Your task to perform on an android device: Show me recent news Image 0: 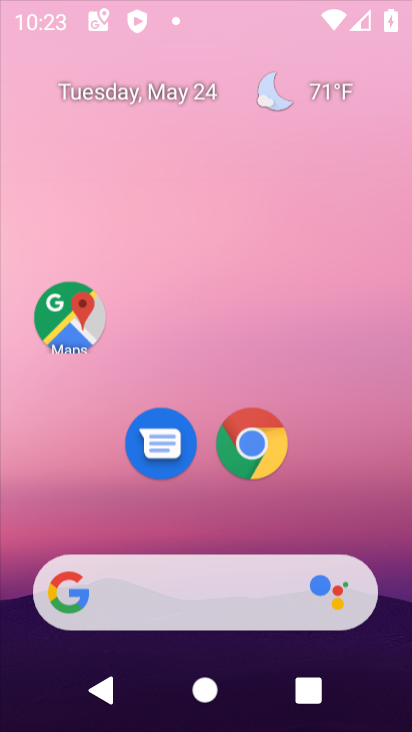
Step 0: drag from (318, 72) to (309, 26)
Your task to perform on an android device: Show me recent news Image 1: 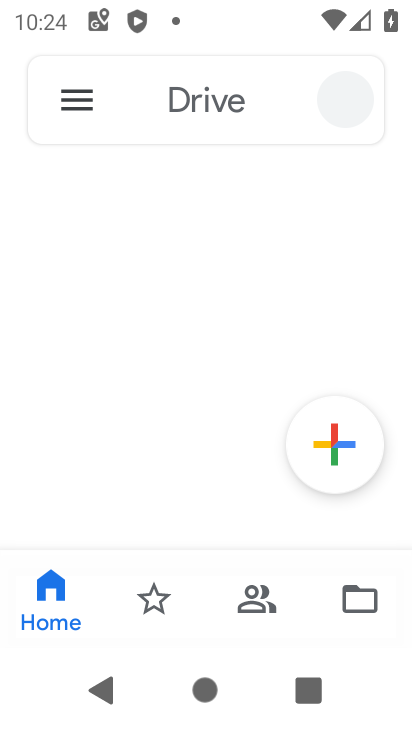
Step 1: press home button
Your task to perform on an android device: Show me recent news Image 2: 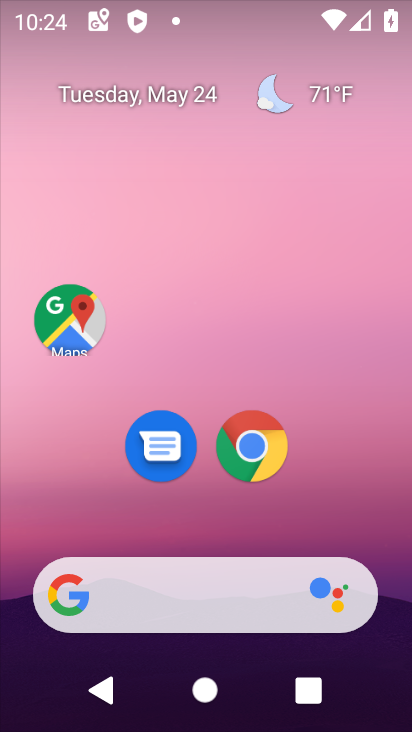
Step 2: drag from (334, 526) to (284, 191)
Your task to perform on an android device: Show me recent news Image 3: 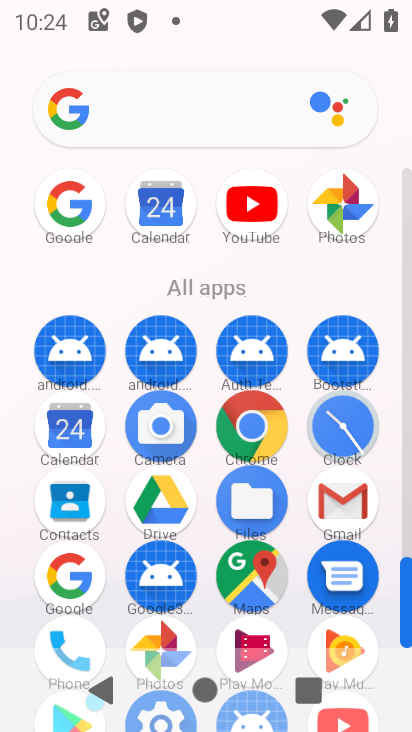
Step 3: click (65, 202)
Your task to perform on an android device: Show me recent news Image 4: 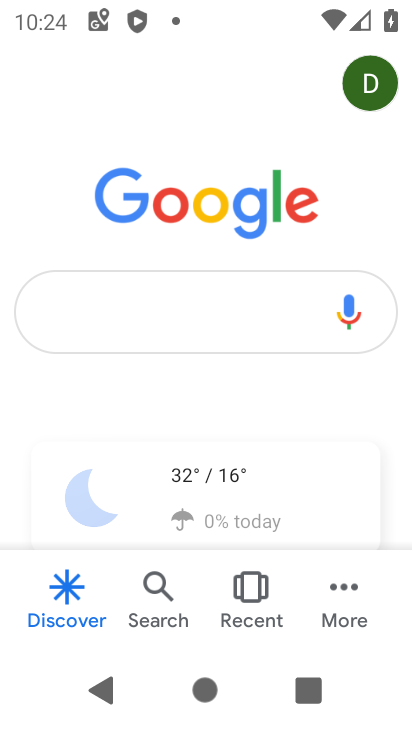
Step 4: click (156, 295)
Your task to perform on an android device: Show me recent news Image 5: 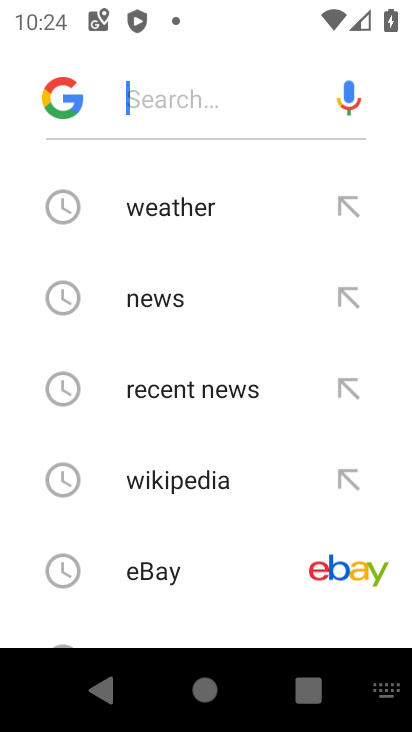
Step 5: type "recent news"
Your task to perform on an android device: Show me recent news Image 6: 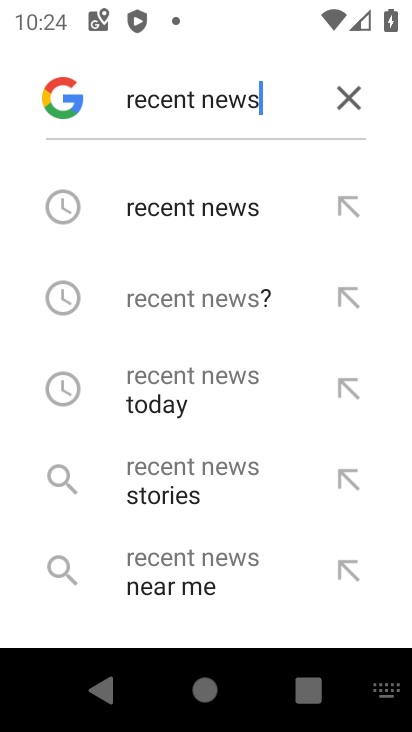
Step 6: click (166, 207)
Your task to perform on an android device: Show me recent news Image 7: 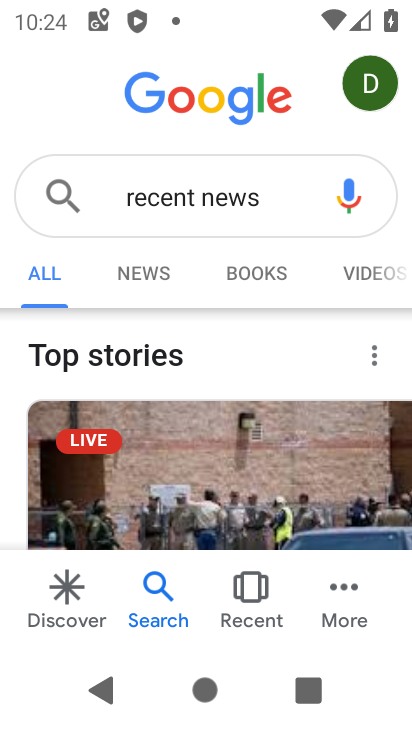
Step 7: drag from (222, 471) to (294, 304)
Your task to perform on an android device: Show me recent news Image 8: 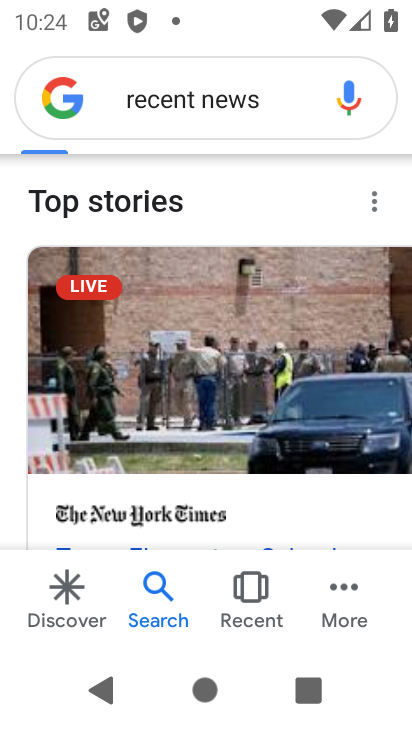
Step 8: drag from (245, 487) to (308, 337)
Your task to perform on an android device: Show me recent news Image 9: 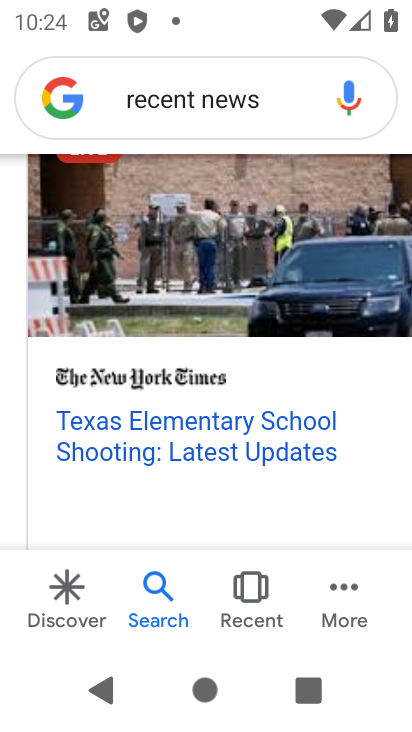
Step 9: drag from (186, 480) to (262, 300)
Your task to perform on an android device: Show me recent news Image 10: 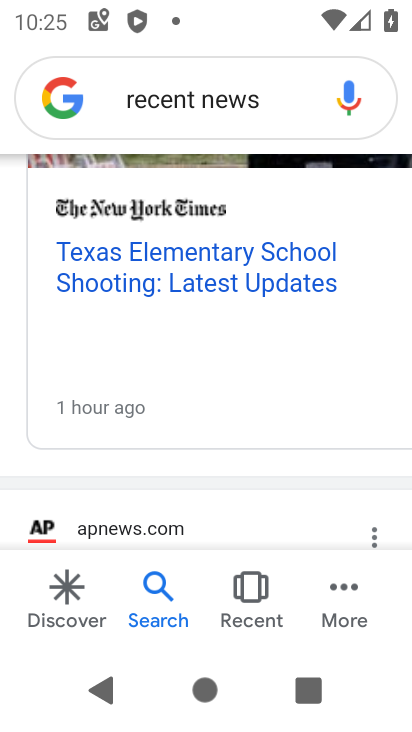
Step 10: click (292, 267)
Your task to perform on an android device: Show me recent news Image 11: 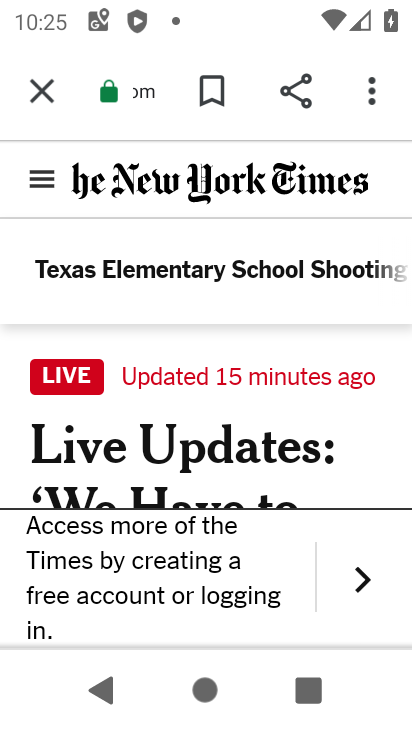
Step 11: task complete